Your task to perform on an android device: turn off notifications in google photos Image 0: 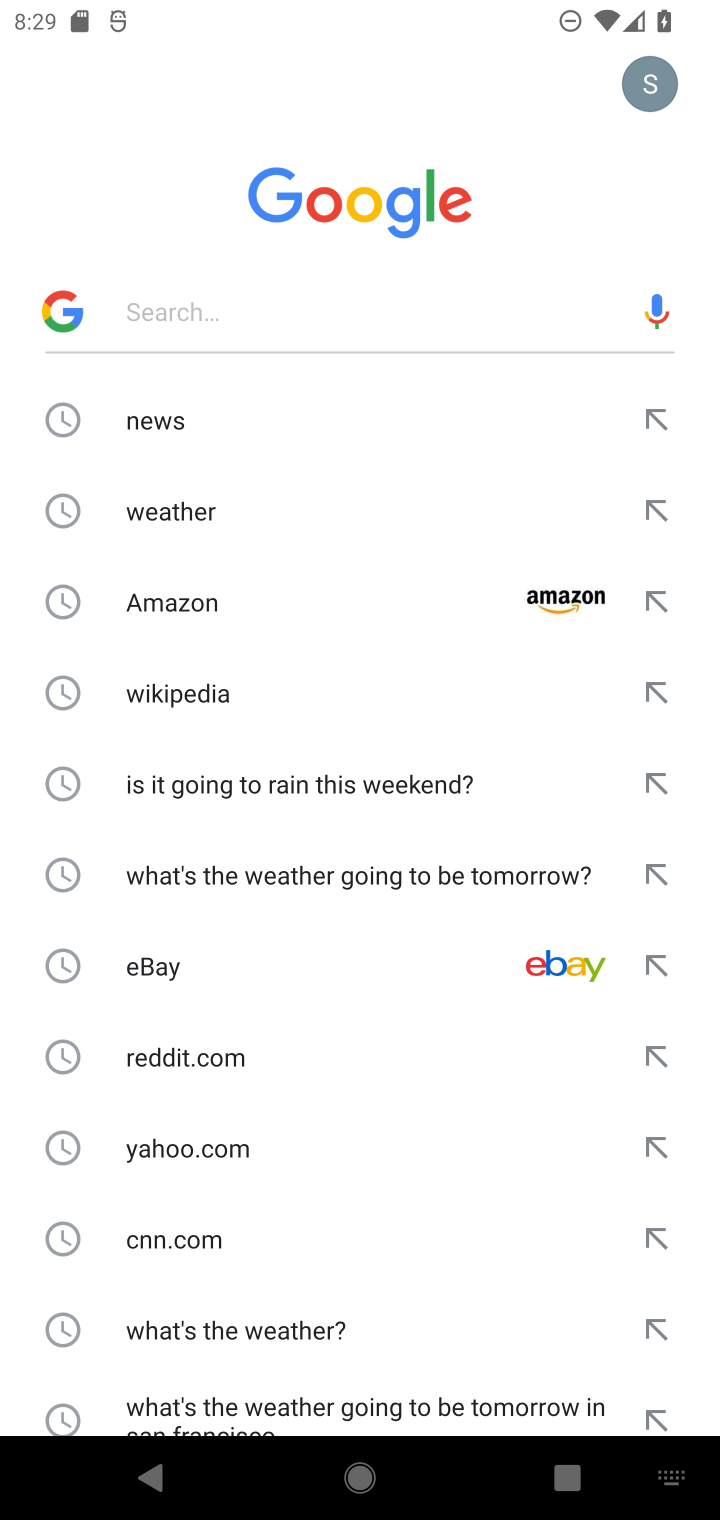
Step 0: press home button
Your task to perform on an android device: turn off notifications in google photos Image 1: 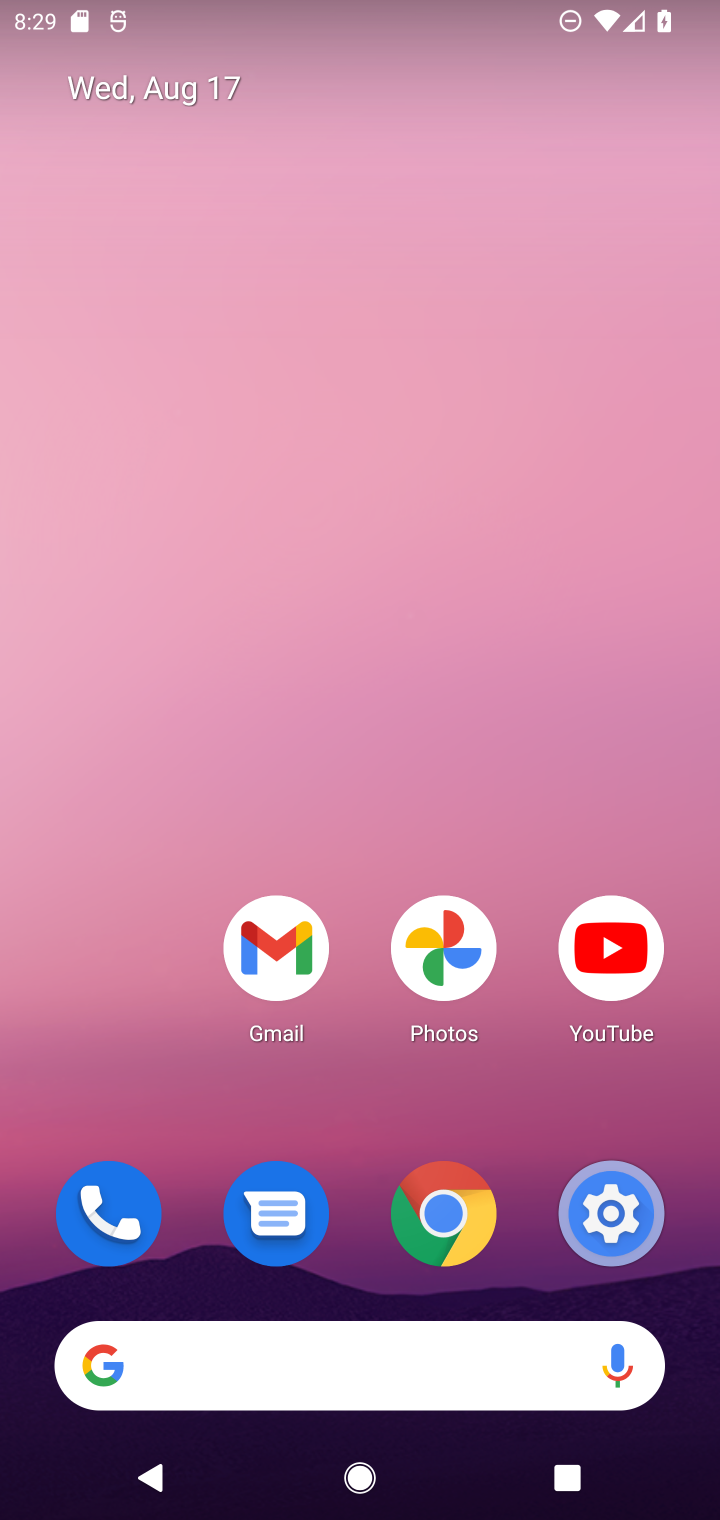
Step 1: click (455, 1030)
Your task to perform on an android device: turn off notifications in google photos Image 2: 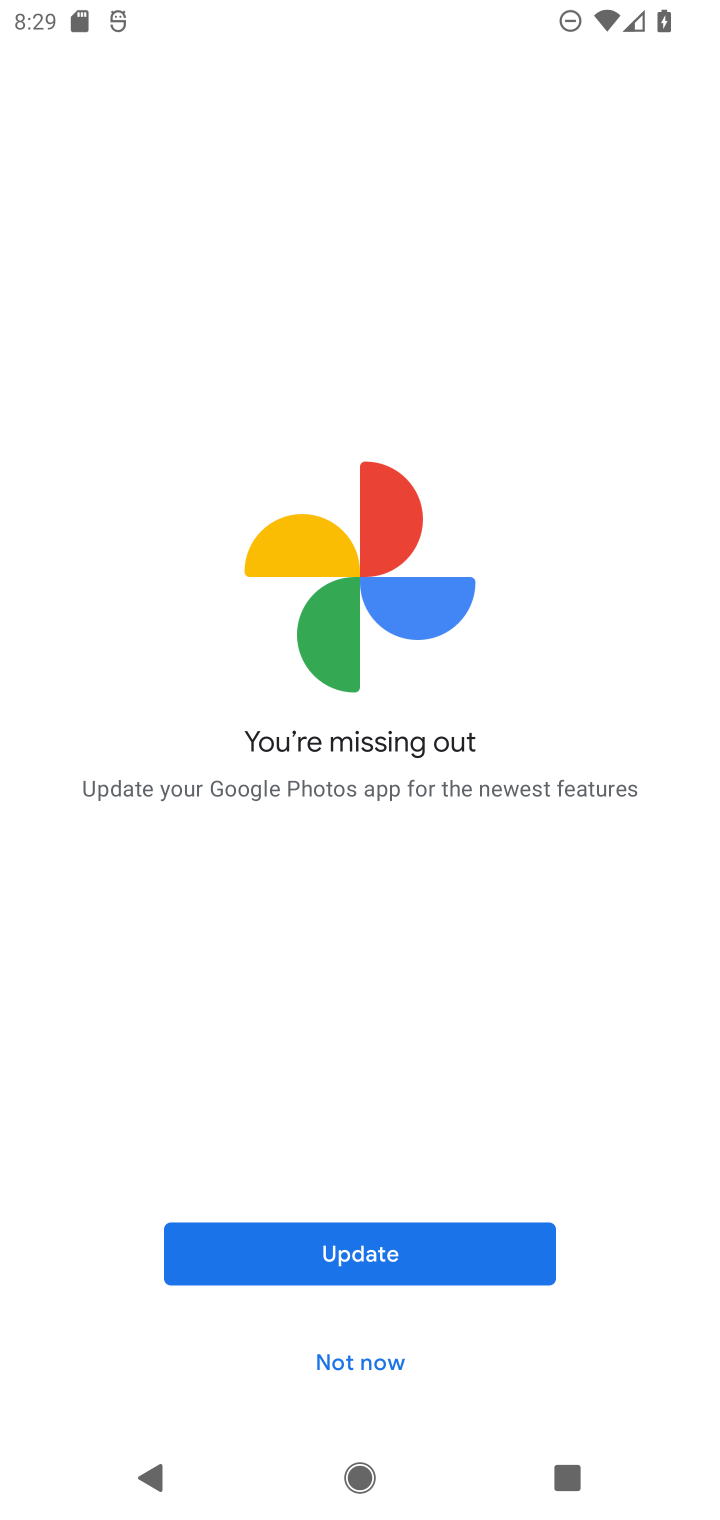
Step 2: click (457, 1244)
Your task to perform on an android device: turn off notifications in google photos Image 3: 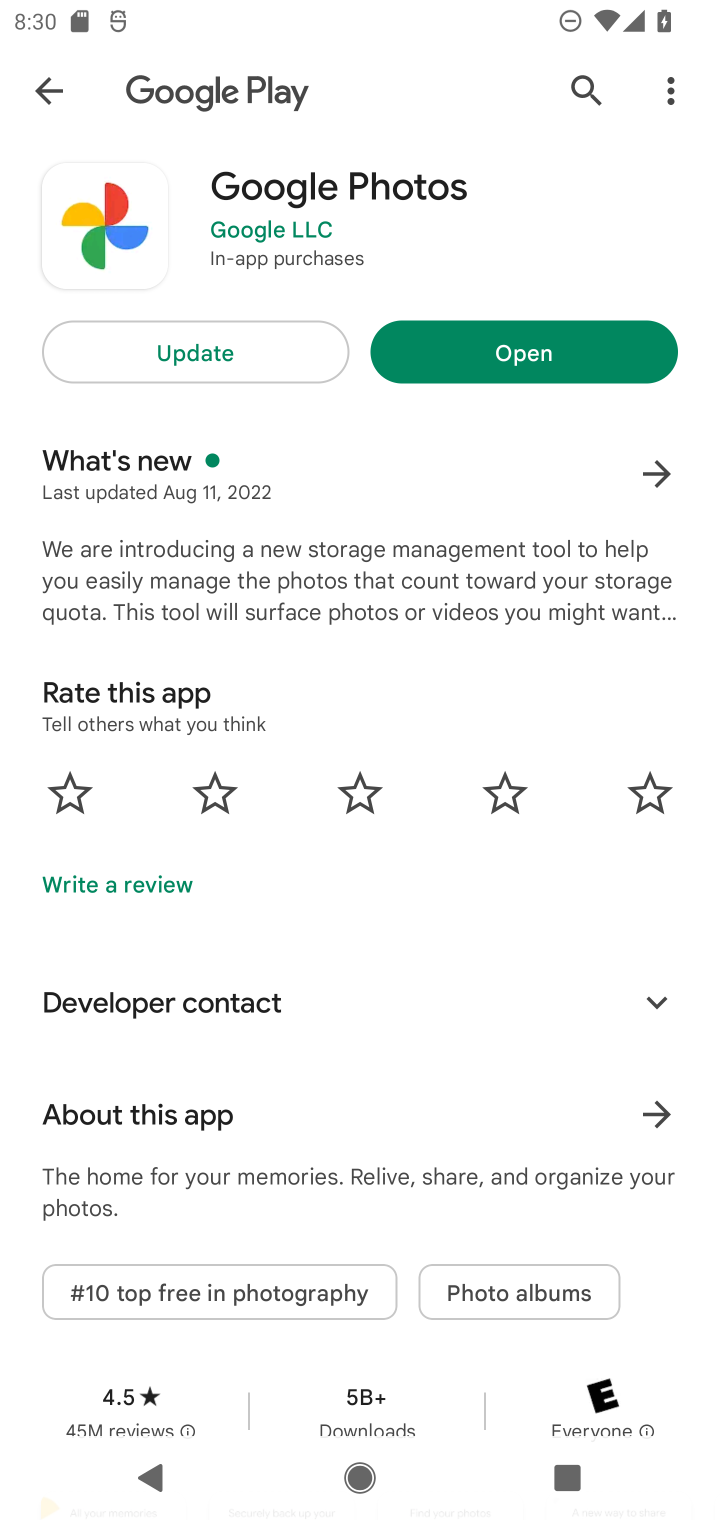
Step 3: click (181, 347)
Your task to perform on an android device: turn off notifications in google photos Image 4: 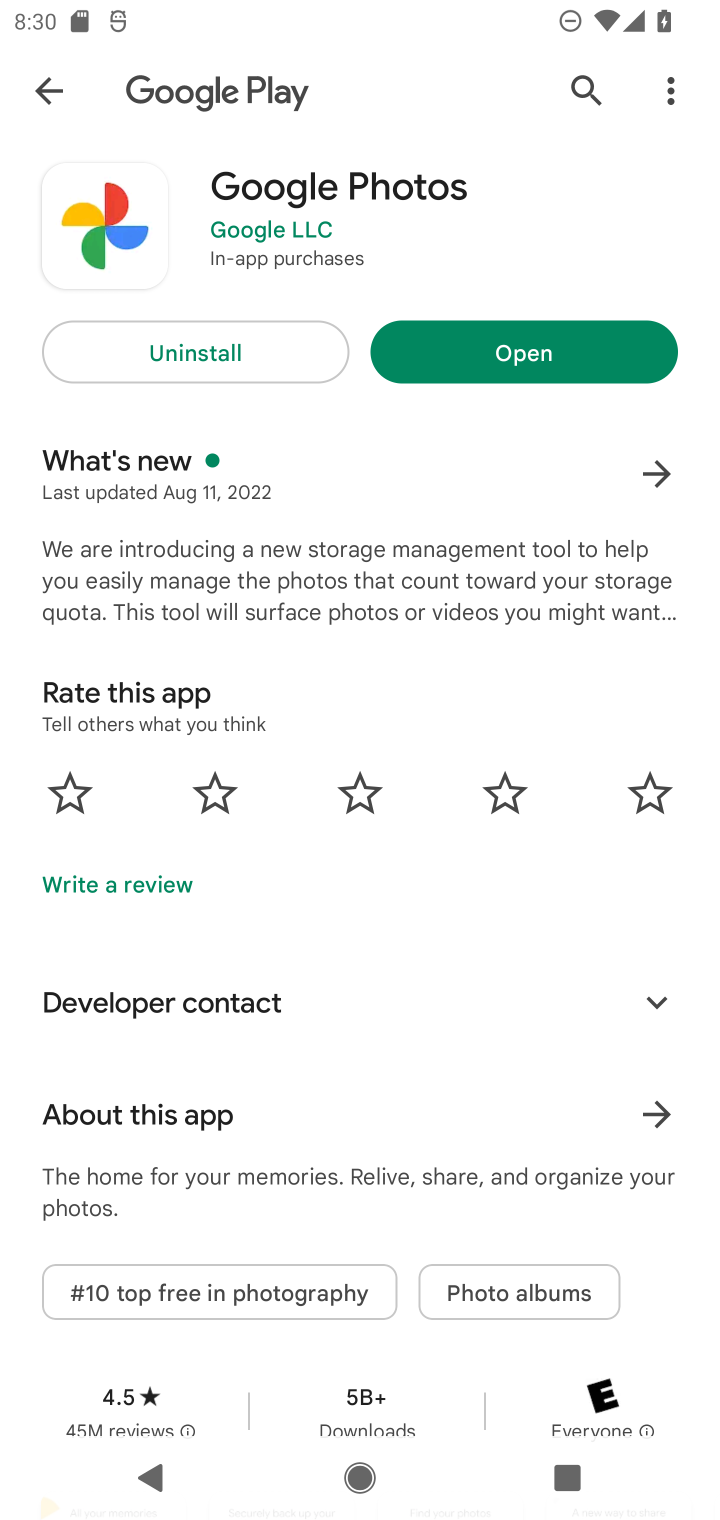
Step 4: click (538, 348)
Your task to perform on an android device: turn off notifications in google photos Image 5: 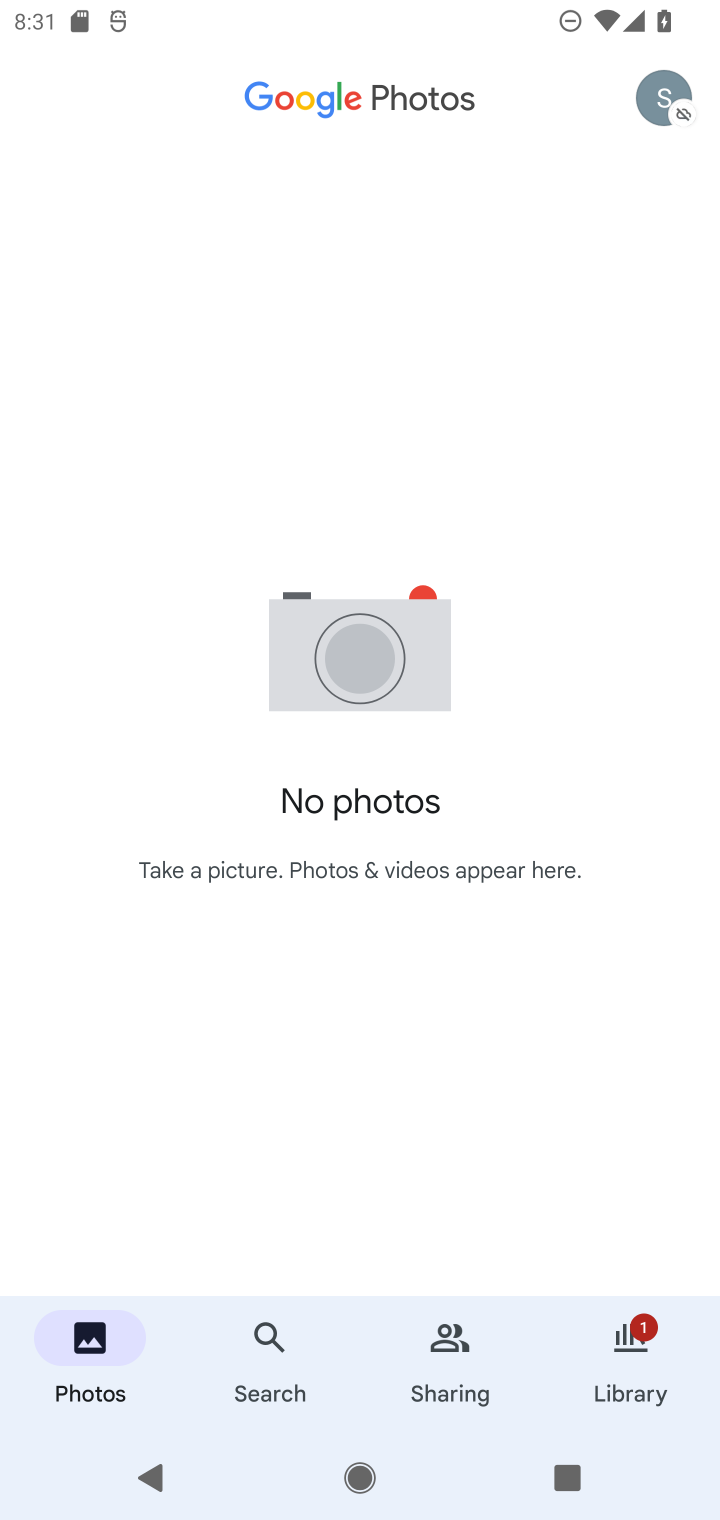
Step 5: task complete